Your task to perform on an android device: toggle notifications settings in the gmail app Image 0: 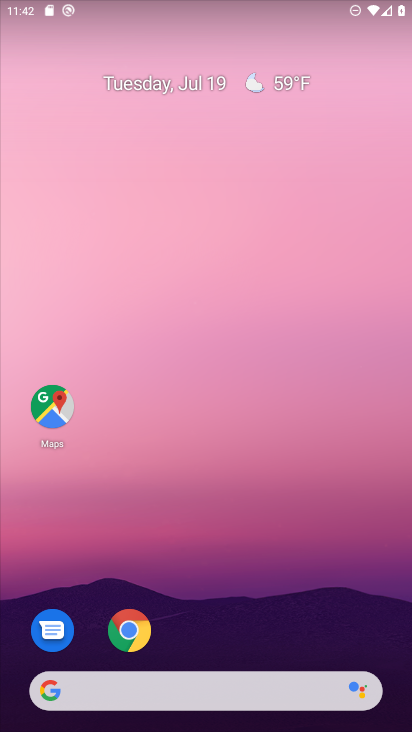
Step 0: drag from (274, 686) to (219, 120)
Your task to perform on an android device: toggle notifications settings in the gmail app Image 1: 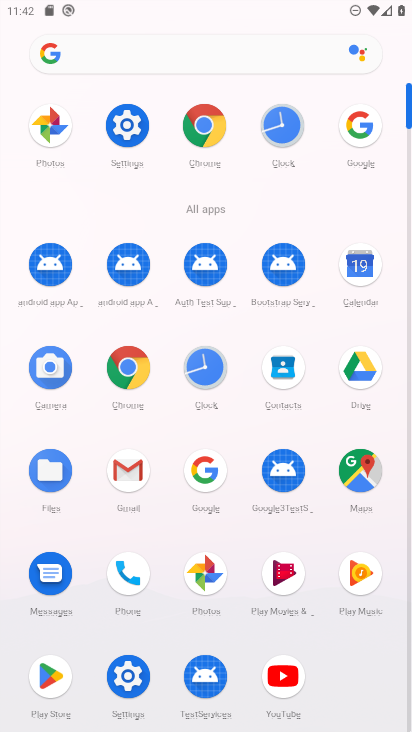
Step 1: click (124, 466)
Your task to perform on an android device: toggle notifications settings in the gmail app Image 2: 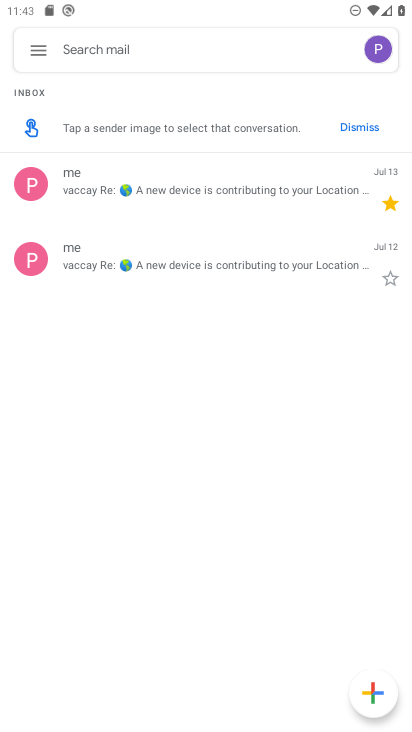
Step 2: click (35, 45)
Your task to perform on an android device: toggle notifications settings in the gmail app Image 3: 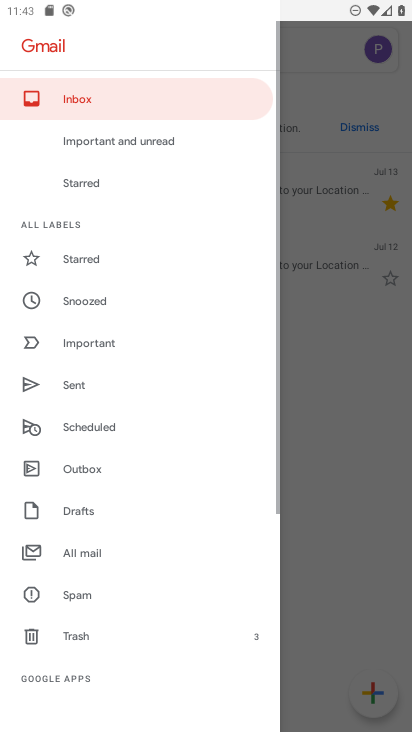
Step 3: drag from (79, 601) to (94, 196)
Your task to perform on an android device: toggle notifications settings in the gmail app Image 4: 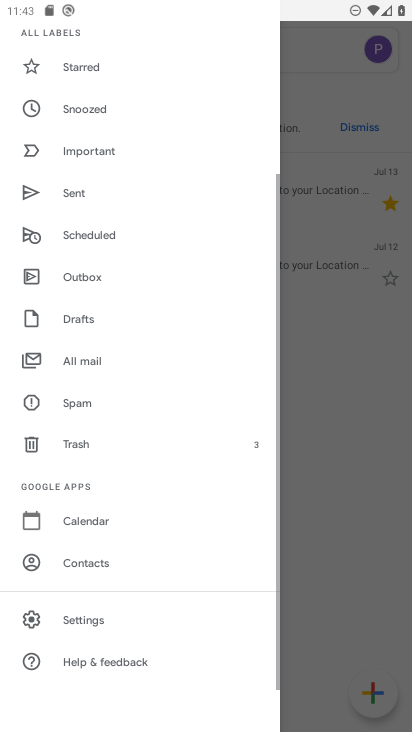
Step 4: click (93, 620)
Your task to perform on an android device: toggle notifications settings in the gmail app Image 5: 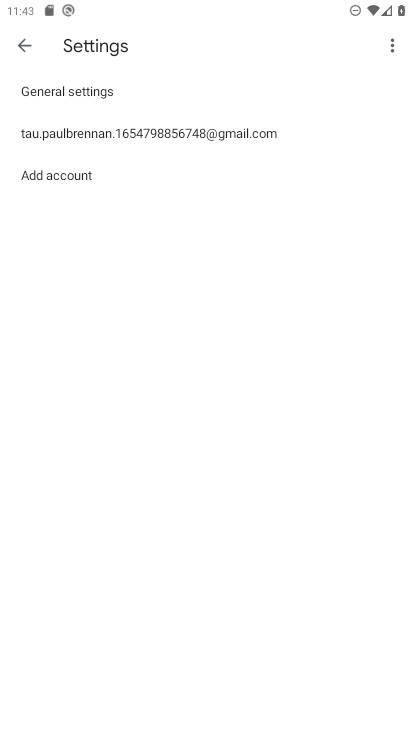
Step 5: click (161, 131)
Your task to perform on an android device: toggle notifications settings in the gmail app Image 6: 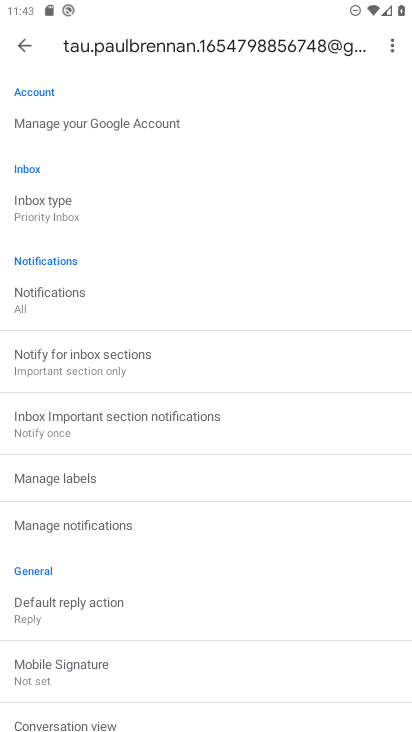
Step 6: click (90, 517)
Your task to perform on an android device: toggle notifications settings in the gmail app Image 7: 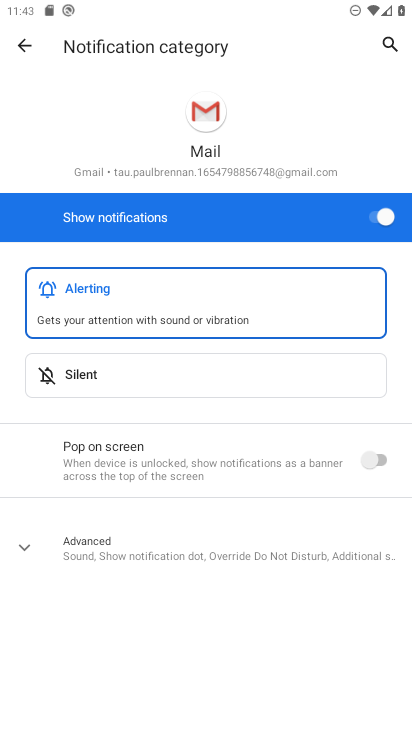
Step 7: click (384, 216)
Your task to perform on an android device: toggle notifications settings in the gmail app Image 8: 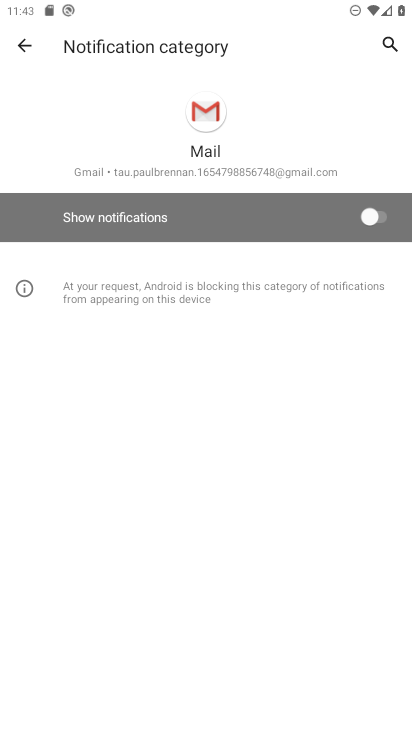
Step 8: task complete